Your task to perform on an android device: empty trash in the gmail app Image 0: 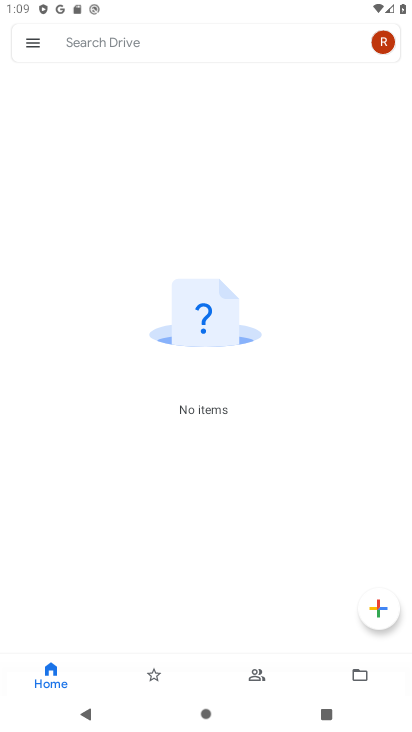
Step 0: press home button
Your task to perform on an android device: empty trash in the gmail app Image 1: 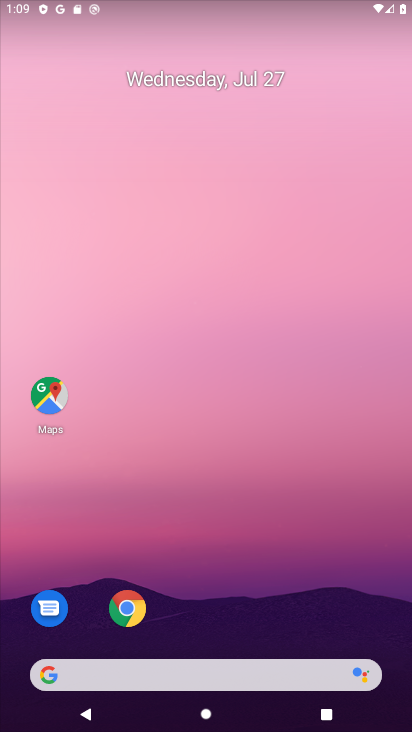
Step 1: drag from (213, 555) to (232, 86)
Your task to perform on an android device: empty trash in the gmail app Image 2: 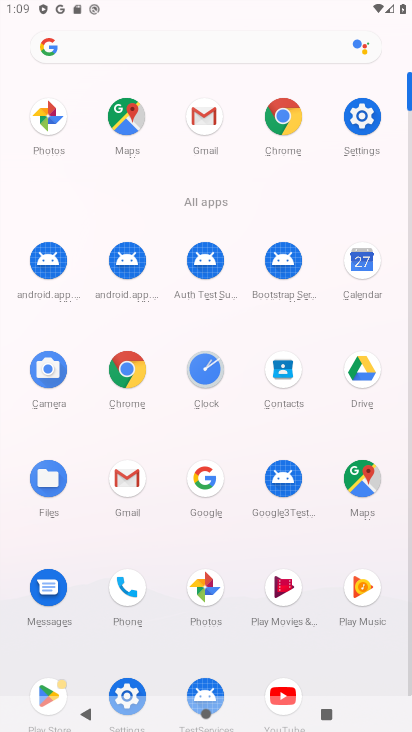
Step 2: click (201, 122)
Your task to perform on an android device: empty trash in the gmail app Image 3: 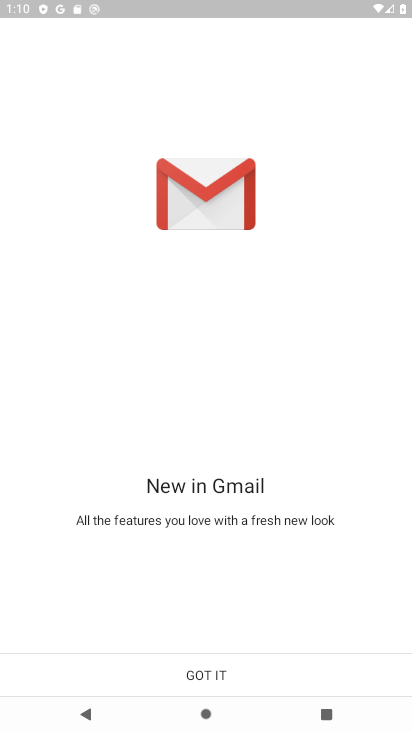
Step 3: click (223, 665)
Your task to perform on an android device: empty trash in the gmail app Image 4: 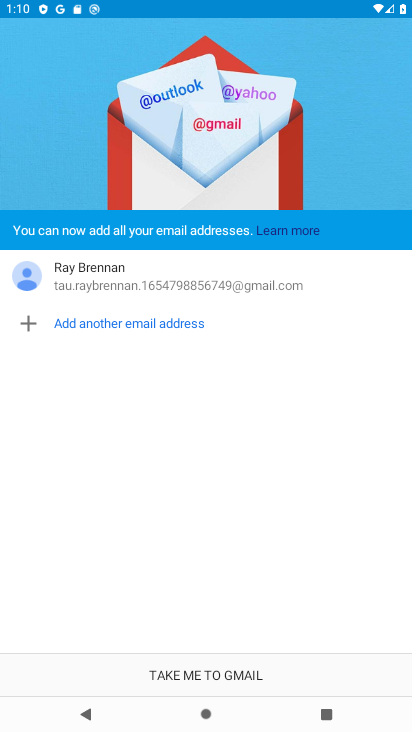
Step 4: click (223, 665)
Your task to perform on an android device: empty trash in the gmail app Image 5: 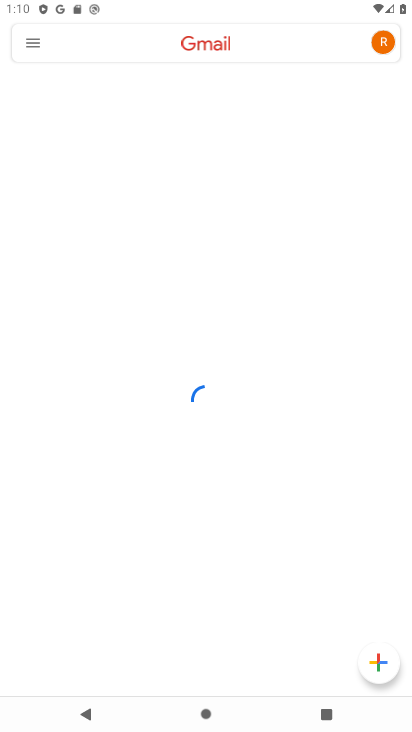
Step 5: click (31, 36)
Your task to perform on an android device: empty trash in the gmail app Image 6: 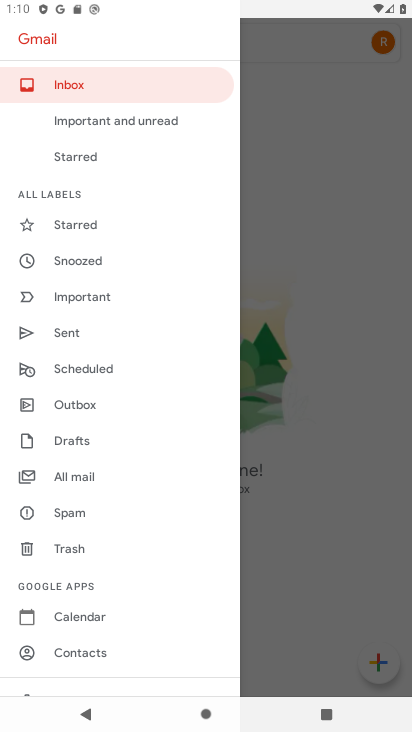
Step 6: click (54, 546)
Your task to perform on an android device: empty trash in the gmail app Image 7: 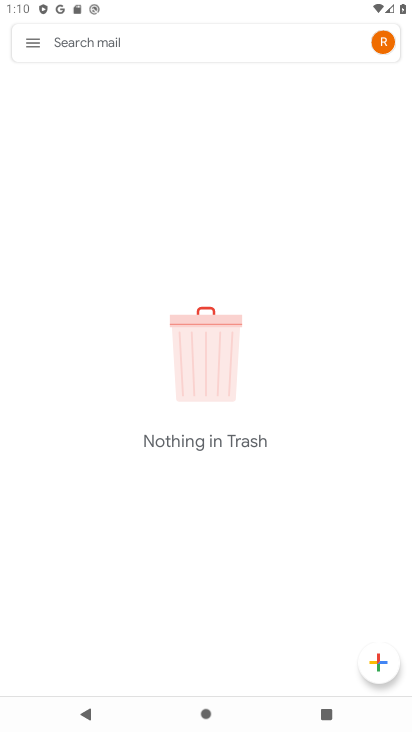
Step 7: task complete